Your task to perform on an android device: See recent photos Image 0: 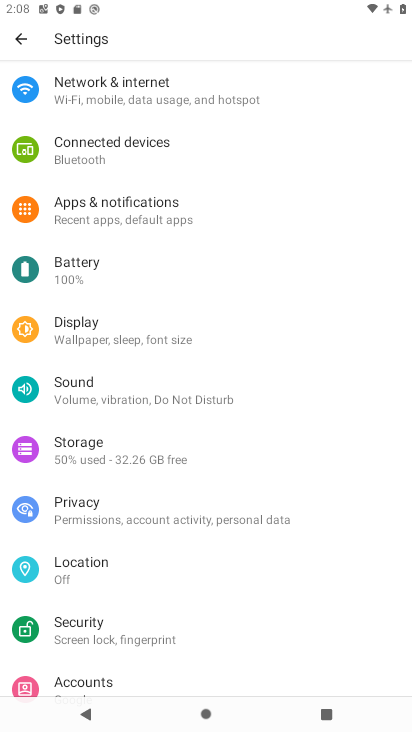
Step 0: press home button
Your task to perform on an android device: See recent photos Image 1: 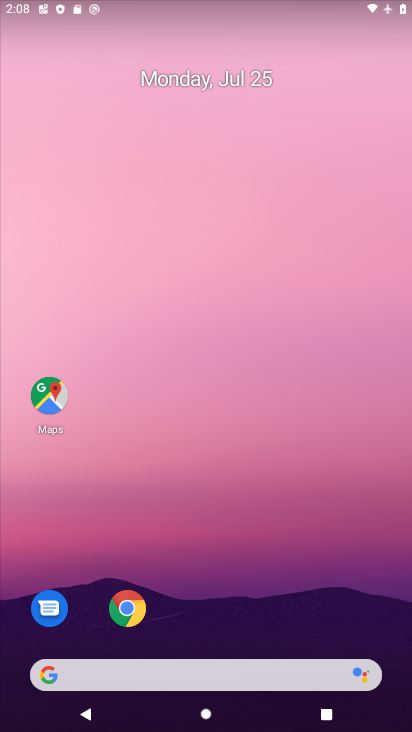
Step 1: drag from (173, 653) to (213, 165)
Your task to perform on an android device: See recent photos Image 2: 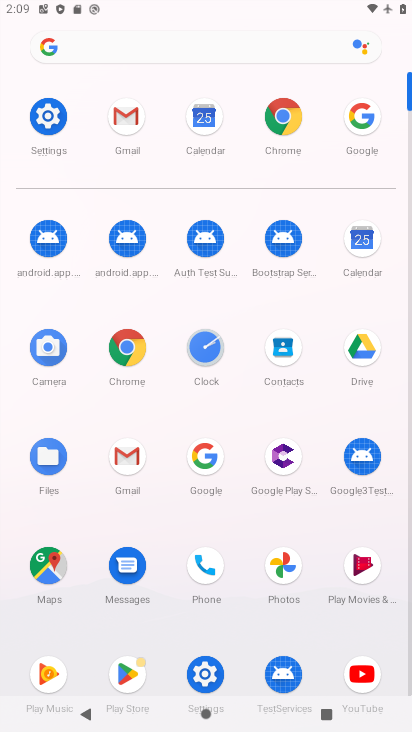
Step 2: click (284, 582)
Your task to perform on an android device: See recent photos Image 3: 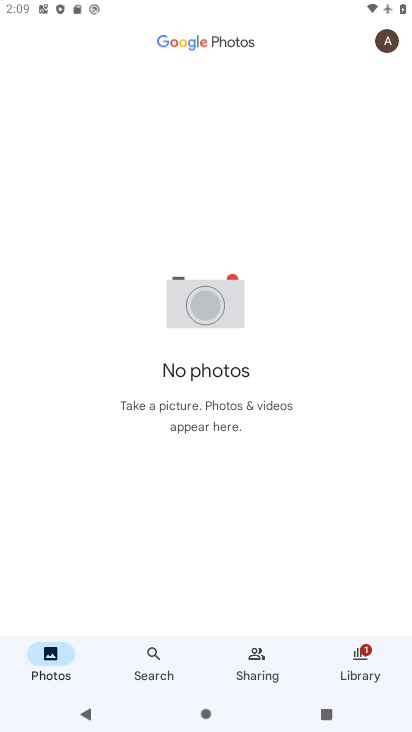
Step 3: task complete